Your task to perform on an android device: turn notification dots off Image 0: 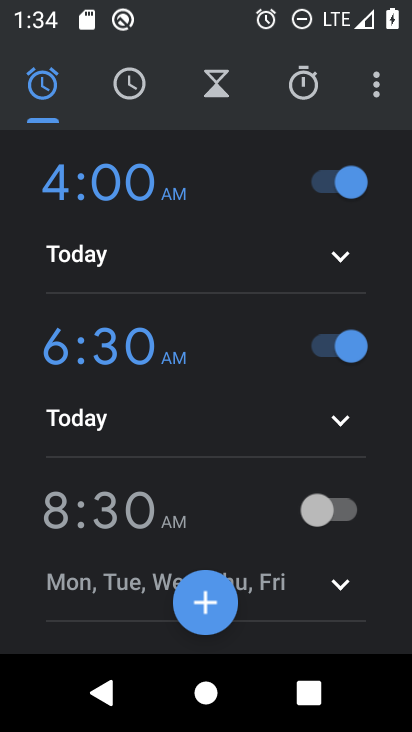
Step 0: press home button
Your task to perform on an android device: turn notification dots off Image 1: 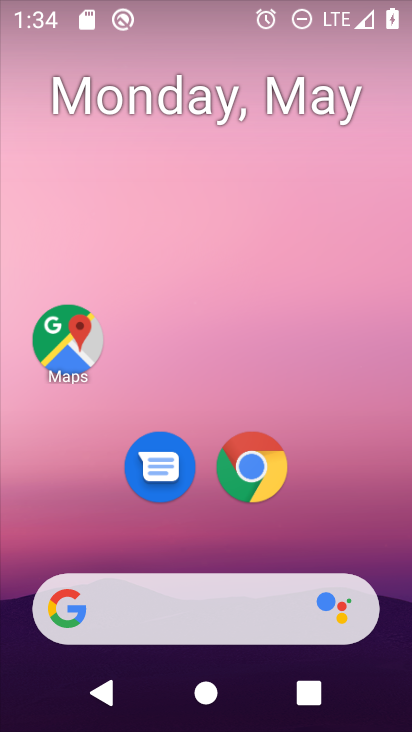
Step 1: drag from (350, 474) to (357, 7)
Your task to perform on an android device: turn notification dots off Image 2: 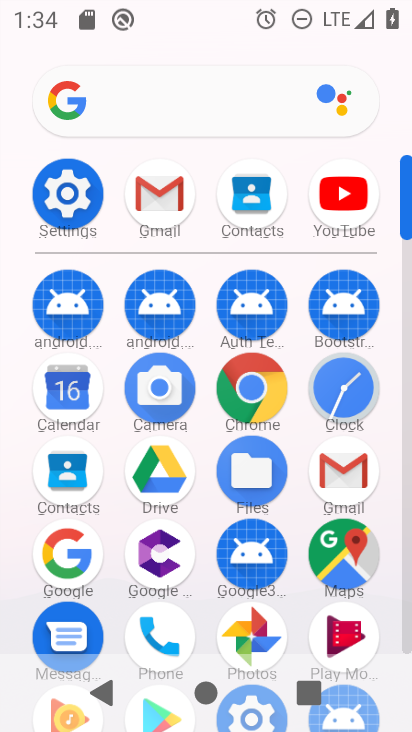
Step 2: click (57, 249)
Your task to perform on an android device: turn notification dots off Image 3: 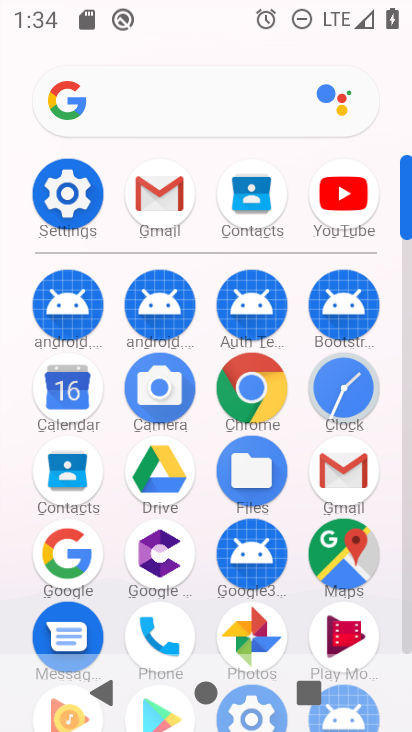
Step 3: click (60, 216)
Your task to perform on an android device: turn notification dots off Image 4: 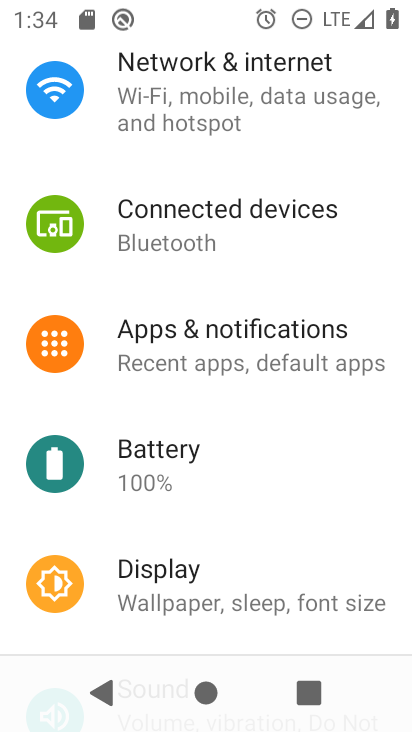
Step 4: click (222, 360)
Your task to perform on an android device: turn notification dots off Image 5: 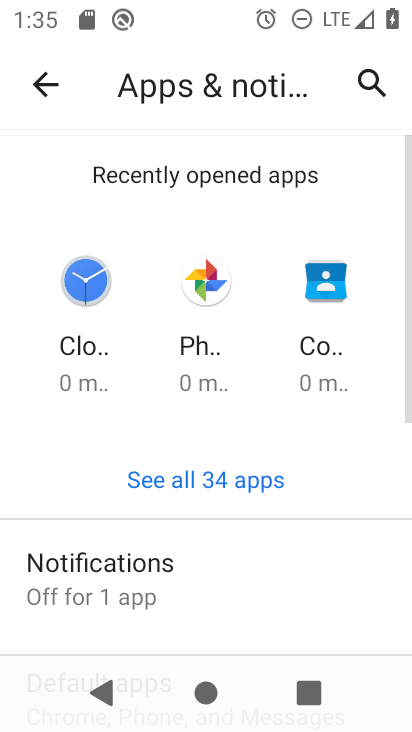
Step 5: click (115, 563)
Your task to perform on an android device: turn notification dots off Image 6: 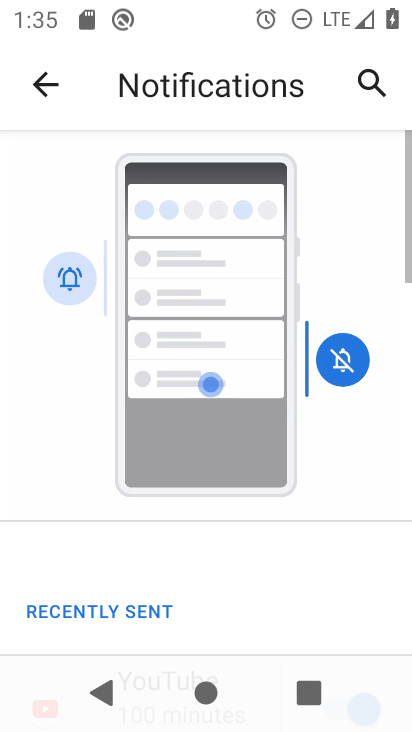
Step 6: drag from (229, 544) to (216, 119)
Your task to perform on an android device: turn notification dots off Image 7: 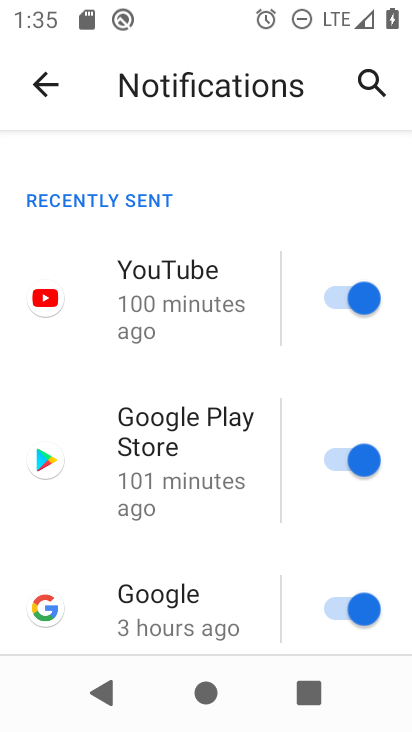
Step 7: drag from (177, 496) to (181, 120)
Your task to perform on an android device: turn notification dots off Image 8: 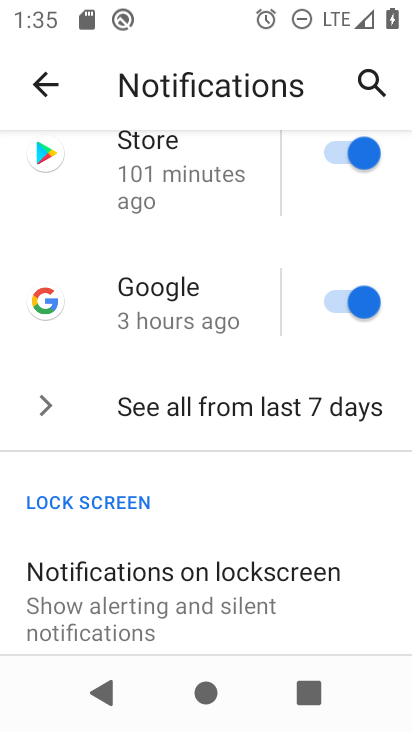
Step 8: drag from (151, 496) to (175, 160)
Your task to perform on an android device: turn notification dots off Image 9: 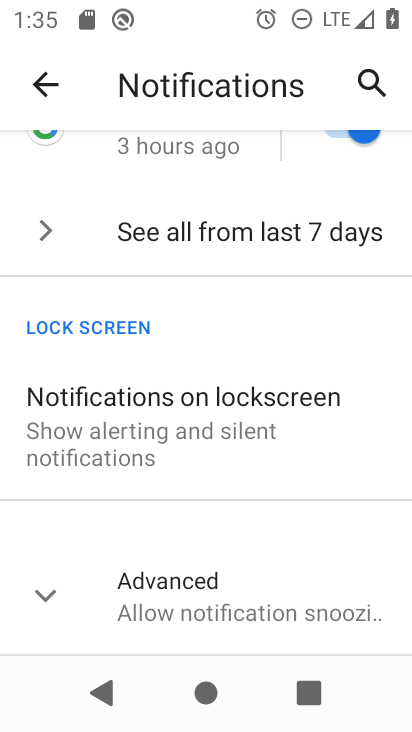
Step 9: click (49, 591)
Your task to perform on an android device: turn notification dots off Image 10: 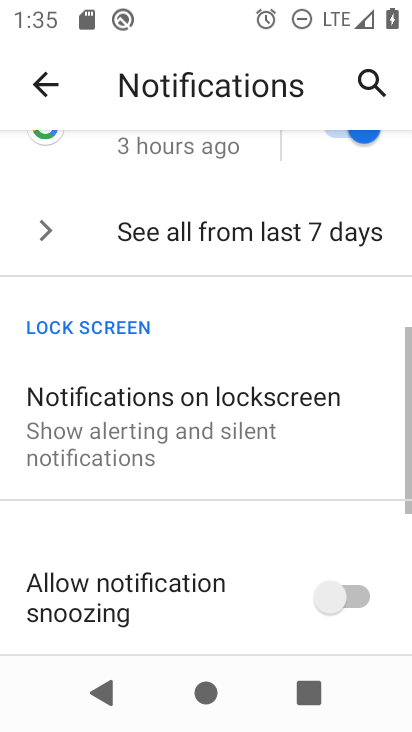
Step 10: drag from (146, 588) to (150, 160)
Your task to perform on an android device: turn notification dots off Image 11: 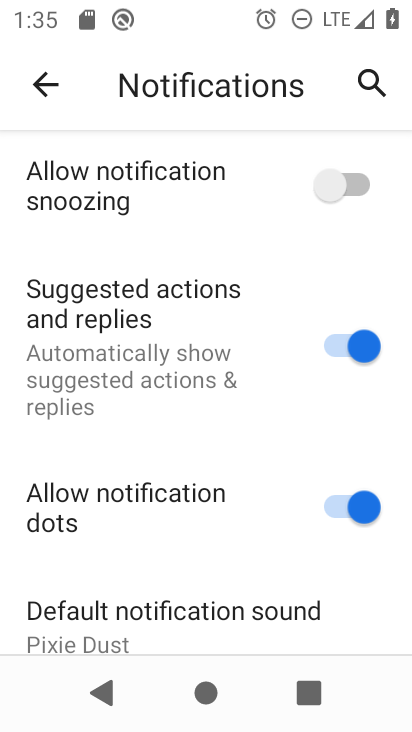
Step 11: click (364, 517)
Your task to perform on an android device: turn notification dots off Image 12: 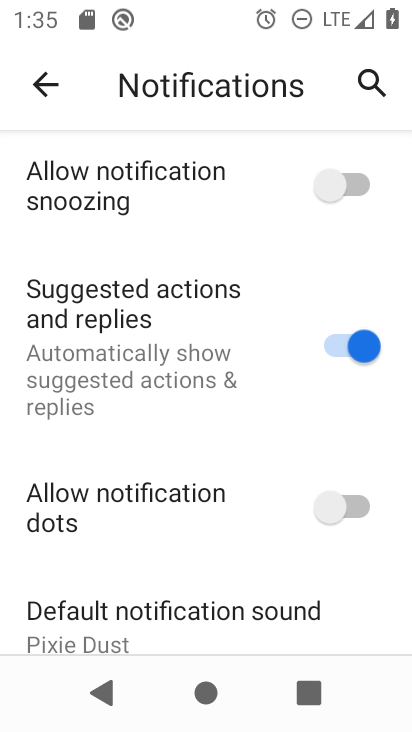
Step 12: task complete